Your task to perform on an android device: check data usage Image 0: 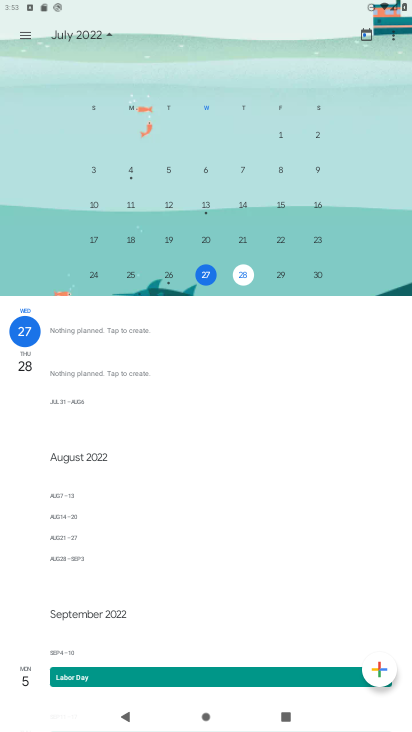
Step 0: drag from (189, 202) to (195, 299)
Your task to perform on an android device: check data usage Image 1: 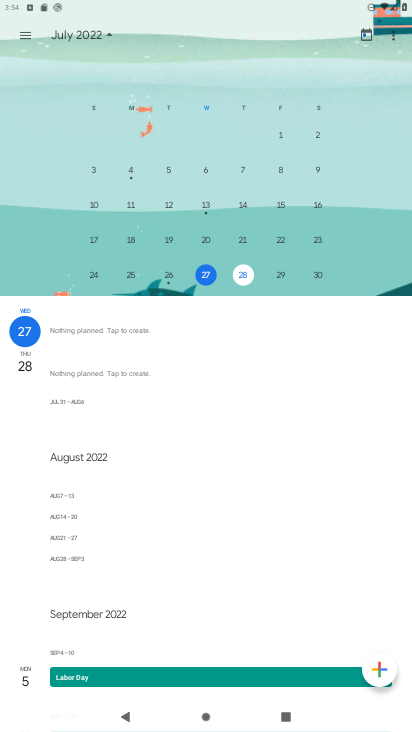
Step 1: drag from (187, 6) to (90, 336)
Your task to perform on an android device: check data usage Image 2: 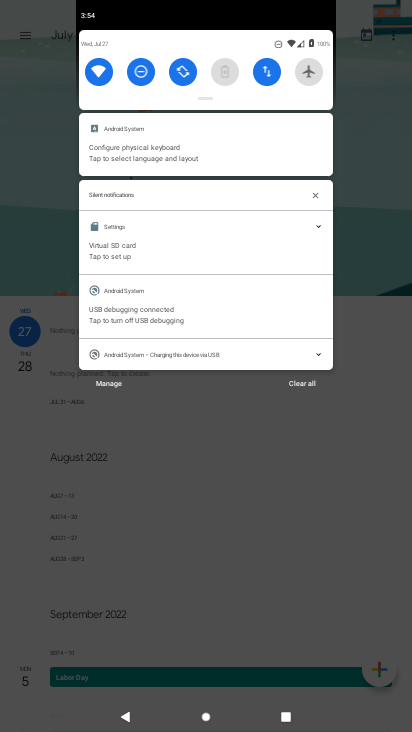
Step 2: click (269, 75)
Your task to perform on an android device: check data usage Image 3: 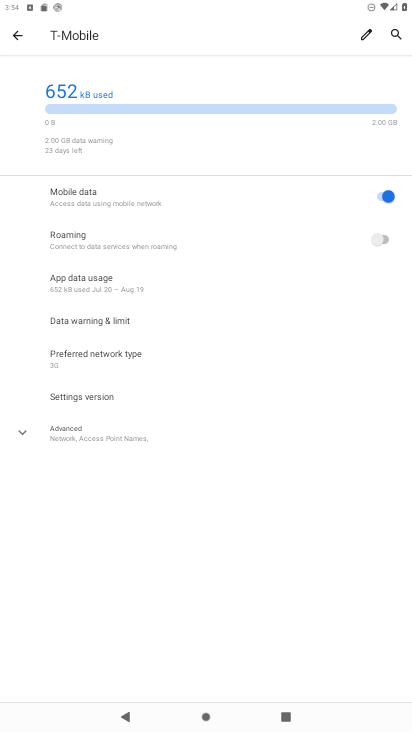
Step 3: task complete